Your task to perform on an android device: Search for sushi restaurants on Maps Image 0: 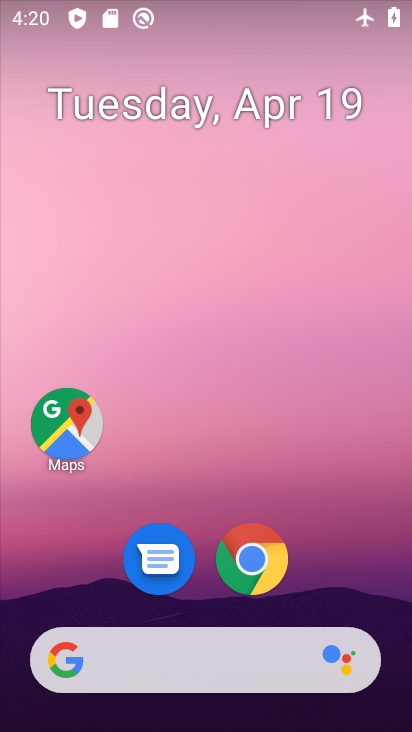
Step 0: drag from (359, 567) to (271, 15)
Your task to perform on an android device: Search for sushi restaurants on Maps Image 1: 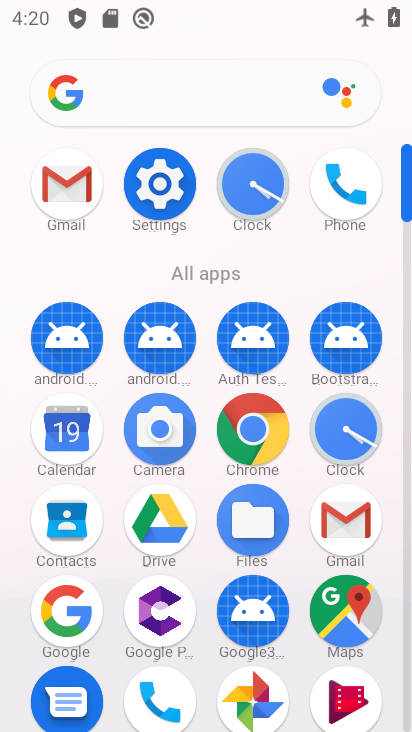
Step 1: click (349, 584)
Your task to perform on an android device: Search for sushi restaurants on Maps Image 2: 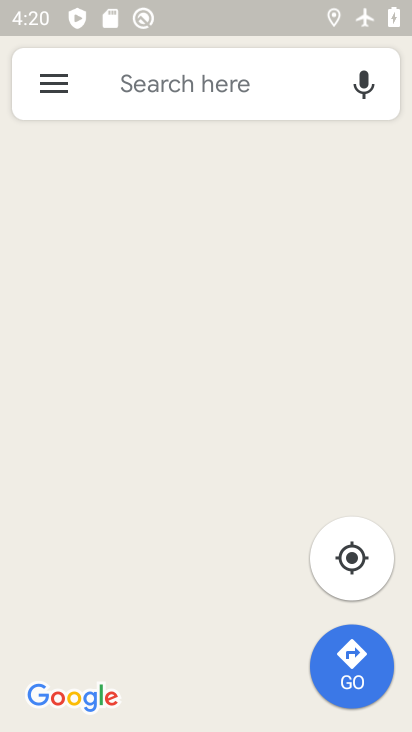
Step 2: click (133, 85)
Your task to perform on an android device: Search for sushi restaurants on Maps Image 3: 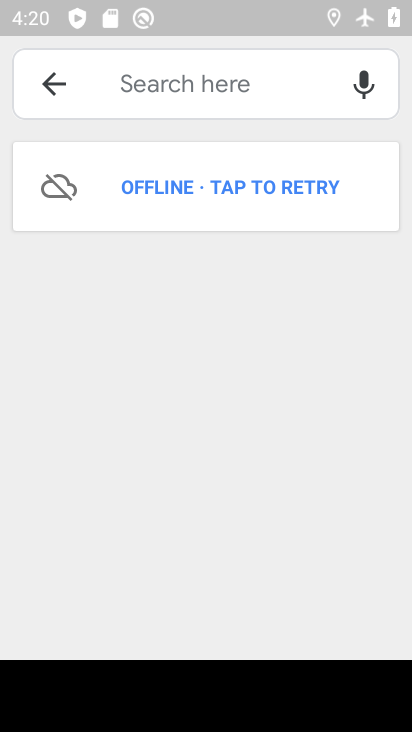
Step 3: type "sushi"
Your task to perform on an android device: Search for sushi restaurants on Maps Image 4: 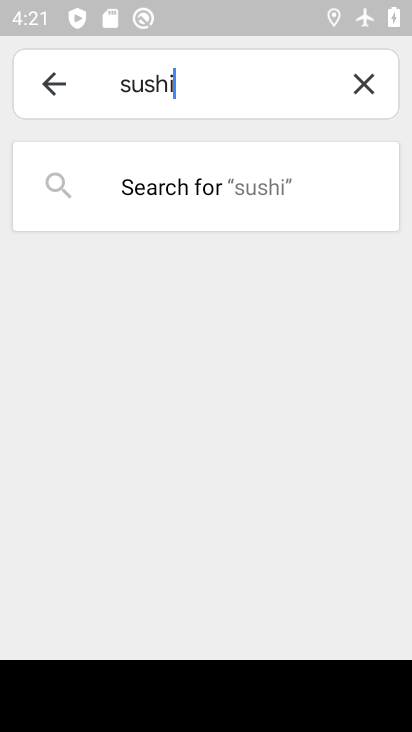
Step 4: task complete